Your task to perform on an android device: What's the weather? Image 0: 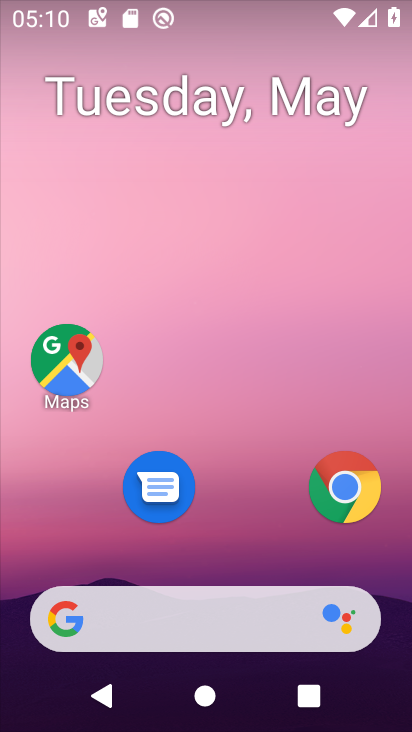
Step 0: click (228, 626)
Your task to perform on an android device: What's the weather? Image 1: 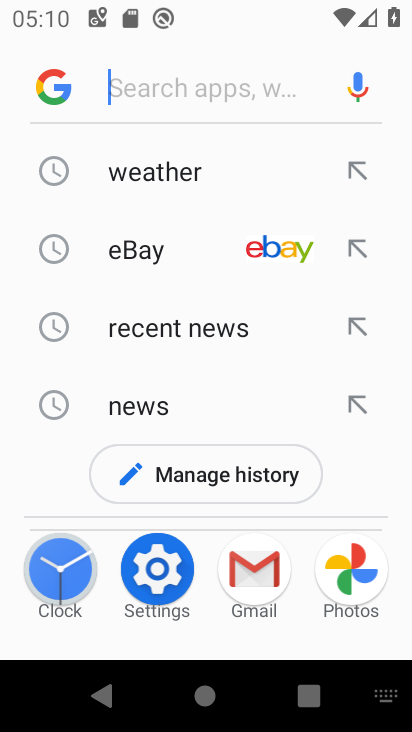
Step 1: click (202, 178)
Your task to perform on an android device: What's the weather? Image 2: 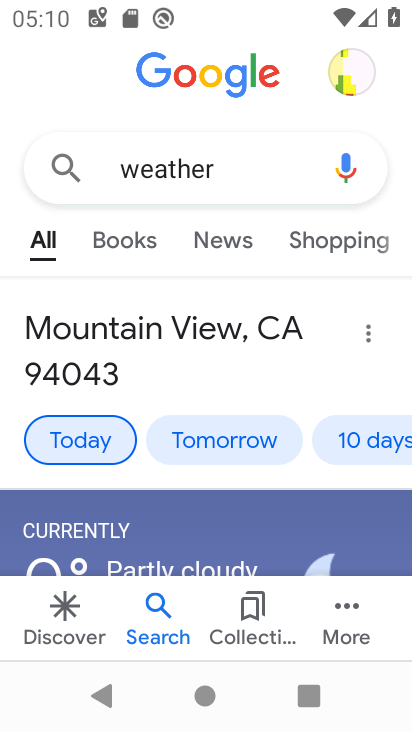
Step 2: task complete